Your task to perform on an android device: set default search engine in the chrome app Image 0: 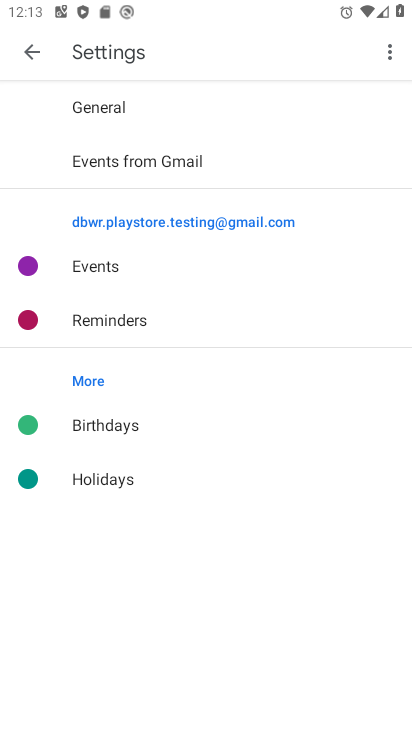
Step 0: press back button
Your task to perform on an android device: set default search engine in the chrome app Image 1: 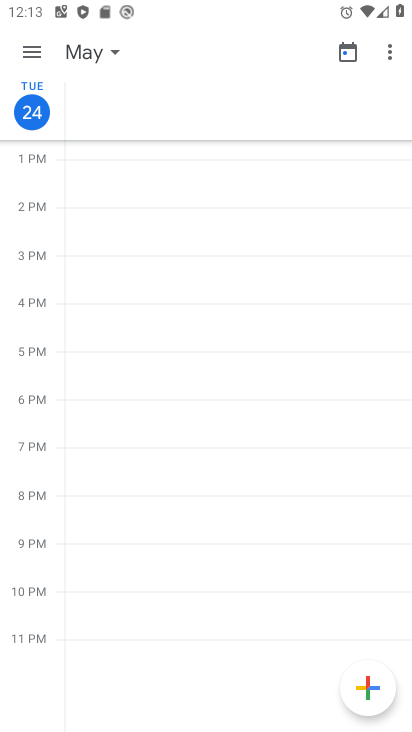
Step 1: press back button
Your task to perform on an android device: set default search engine in the chrome app Image 2: 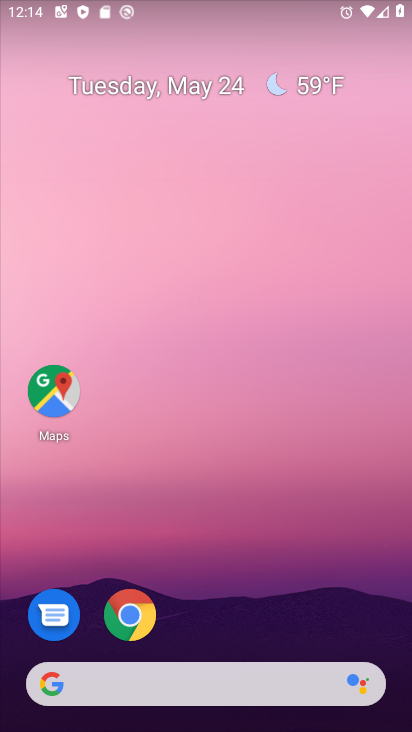
Step 2: drag from (298, 590) to (225, 0)
Your task to perform on an android device: set default search engine in the chrome app Image 3: 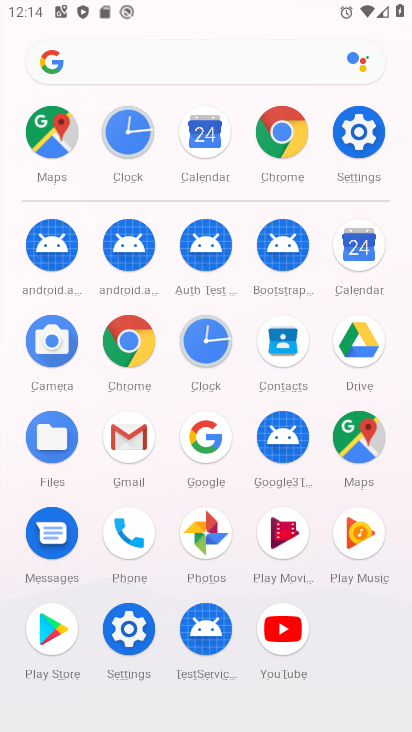
Step 3: drag from (13, 624) to (11, 249)
Your task to perform on an android device: set default search engine in the chrome app Image 4: 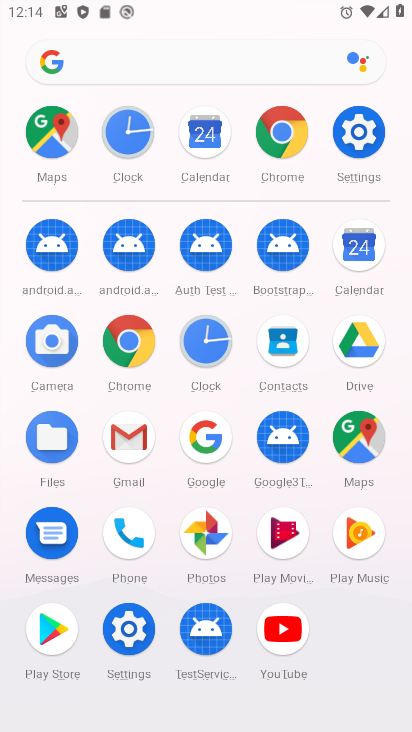
Step 4: click (131, 335)
Your task to perform on an android device: set default search engine in the chrome app Image 5: 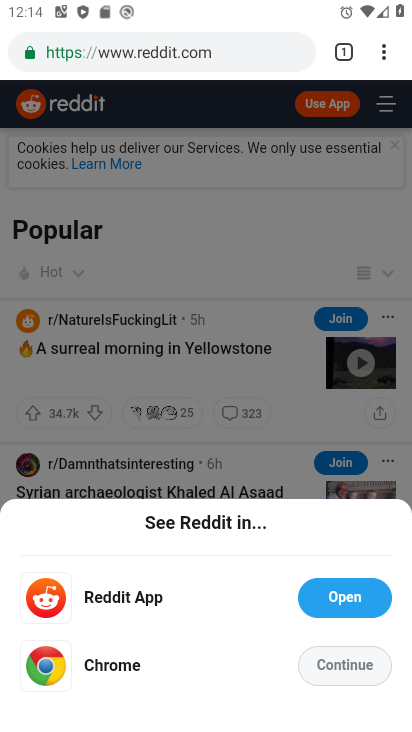
Step 5: click (384, 46)
Your task to perform on an android device: set default search engine in the chrome app Image 6: 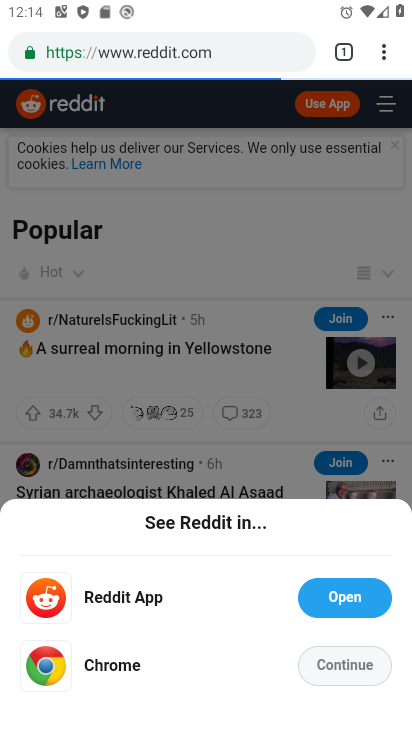
Step 6: task complete